Your task to perform on an android device: toggle translation in the chrome app Image 0: 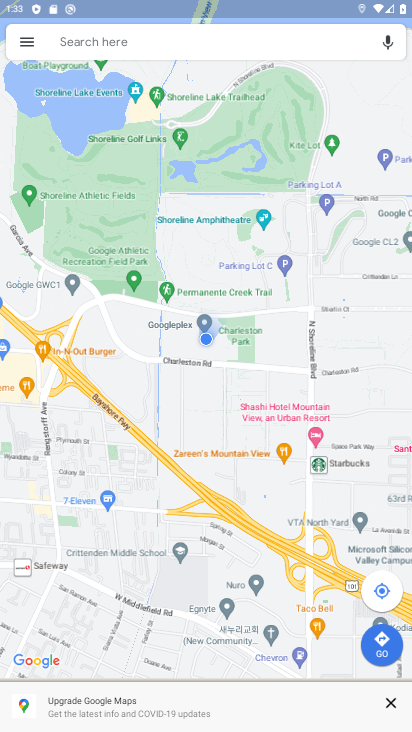
Step 0: press home button
Your task to perform on an android device: toggle translation in the chrome app Image 1: 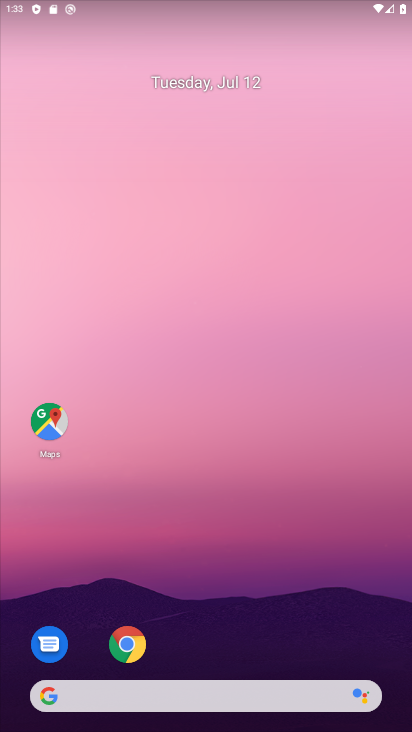
Step 1: click (131, 641)
Your task to perform on an android device: toggle translation in the chrome app Image 2: 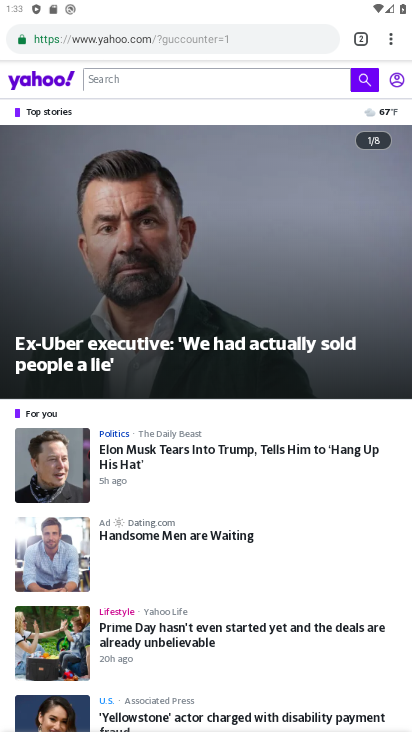
Step 2: click (388, 41)
Your task to perform on an android device: toggle translation in the chrome app Image 3: 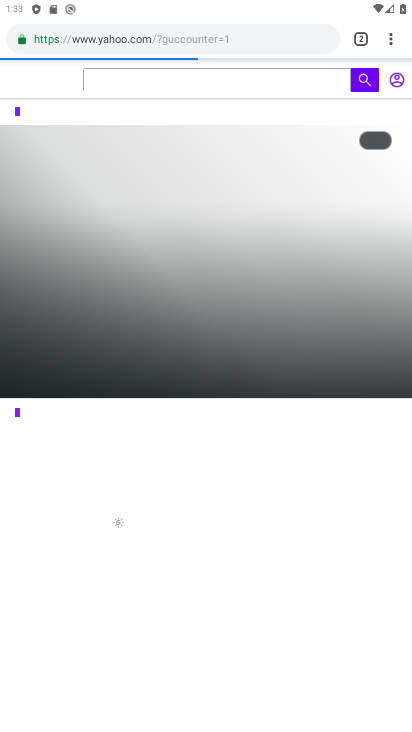
Step 3: drag from (391, 43) to (262, 469)
Your task to perform on an android device: toggle translation in the chrome app Image 4: 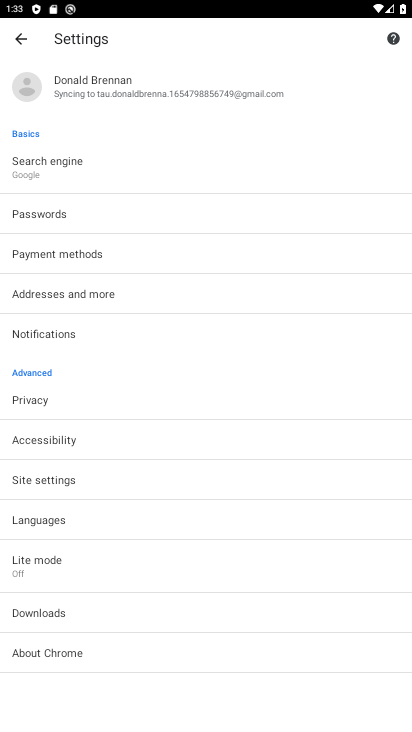
Step 4: click (29, 524)
Your task to perform on an android device: toggle translation in the chrome app Image 5: 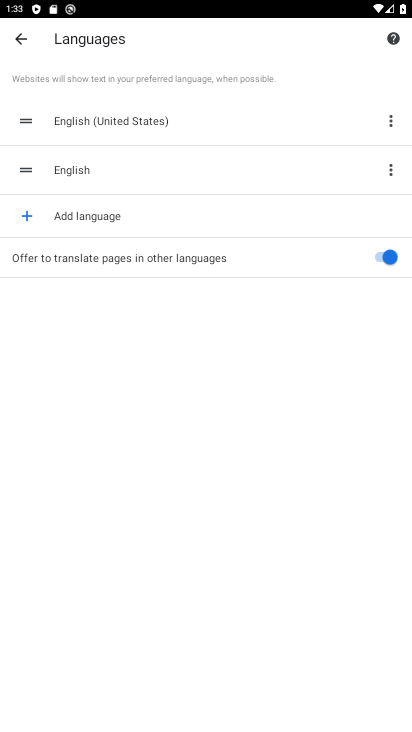
Step 5: click (377, 262)
Your task to perform on an android device: toggle translation in the chrome app Image 6: 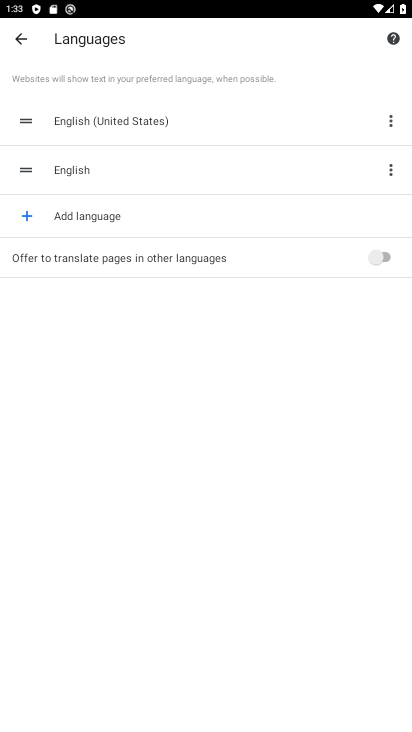
Step 6: task complete